Your task to perform on an android device: Go to sound settings Image 0: 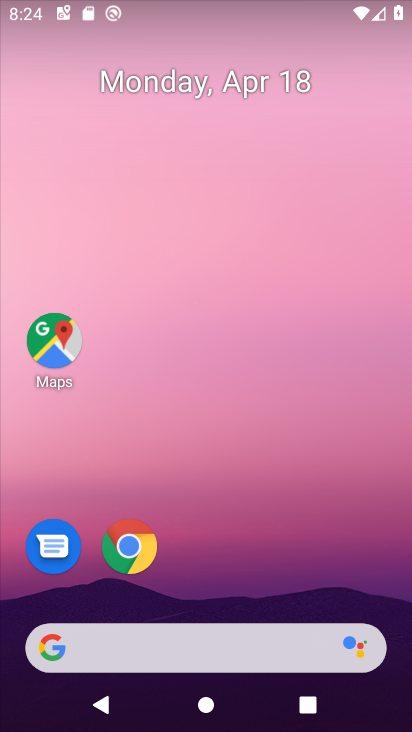
Step 0: drag from (386, 569) to (247, 128)
Your task to perform on an android device: Go to sound settings Image 1: 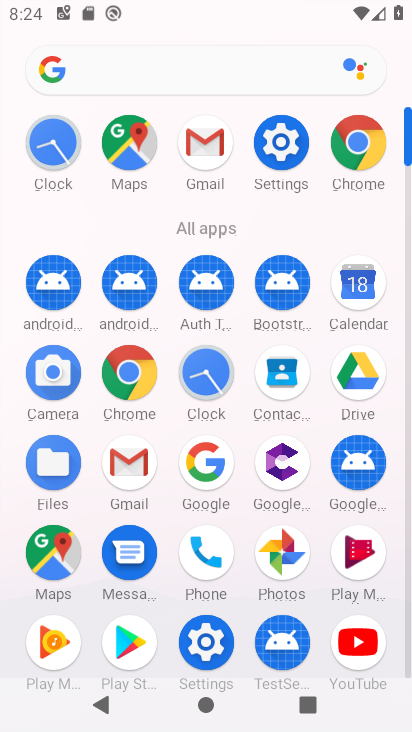
Step 1: click (266, 141)
Your task to perform on an android device: Go to sound settings Image 2: 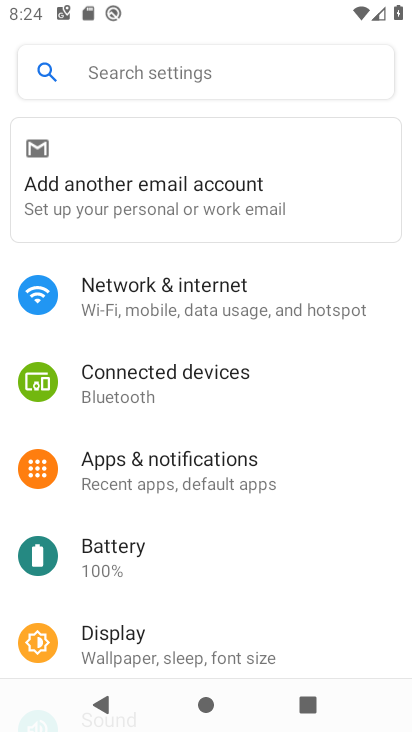
Step 2: drag from (269, 606) to (161, 215)
Your task to perform on an android device: Go to sound settings Image 3: 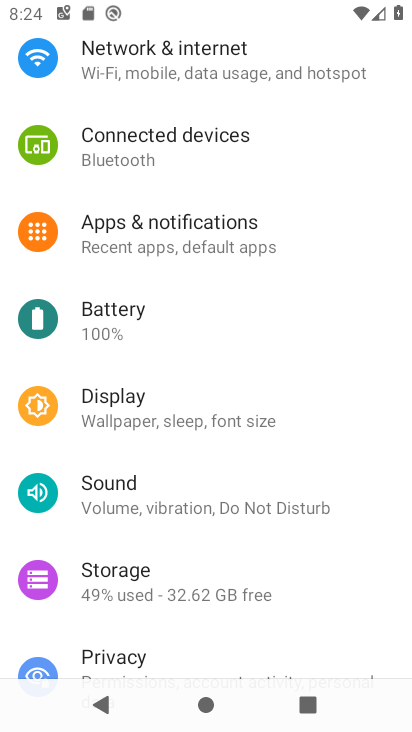
Step 3: click (258, 507)
Your task to perform on an android device: Go to sound settings Image 4: 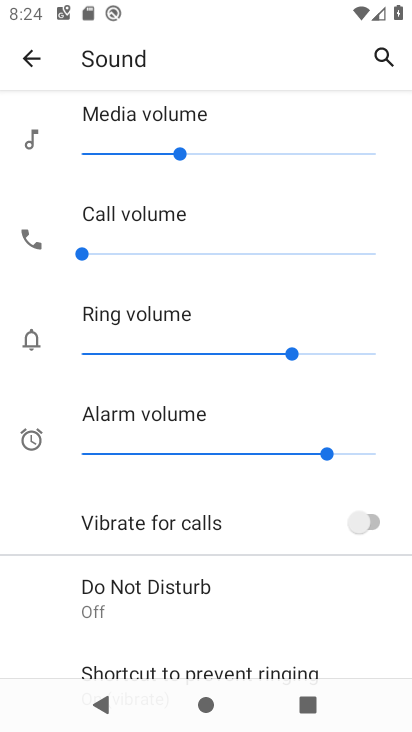
Step 4: task complete